Your task to perform on an android device: see creations saved in the google photos Image 0: 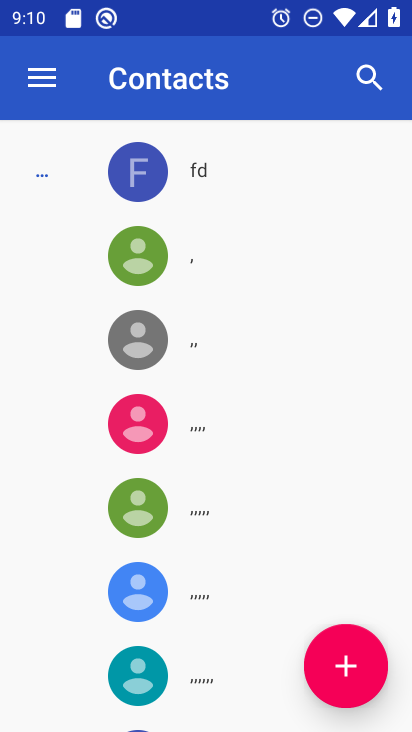
Step 0: drag from (317, 583) to (396, 221)
Your task to perform on an android device: see creations saved in the google photos Image 1: 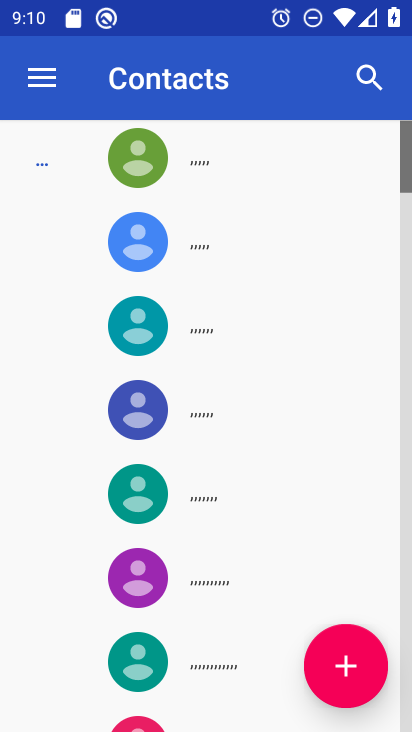
Step 1: press home button
Your task to perform on an android device: see creations saved in the google photos Image 2: 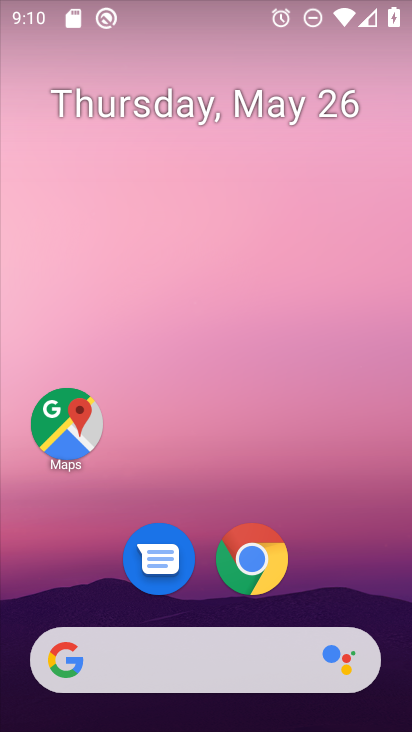
Step 2: drag from (319, 589) to (327, 165)
Your task to perform on an android device: see creations saved in the google photos Image 3: 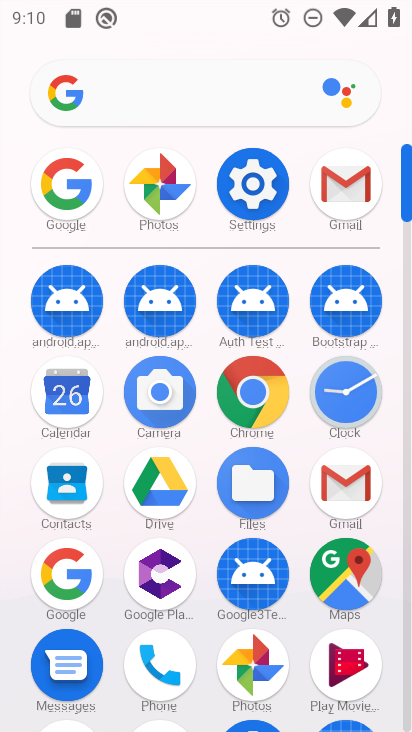
Step 3: click (161, 190)
Your task to perform on an android device: see creations saved in the google photos Image 4: 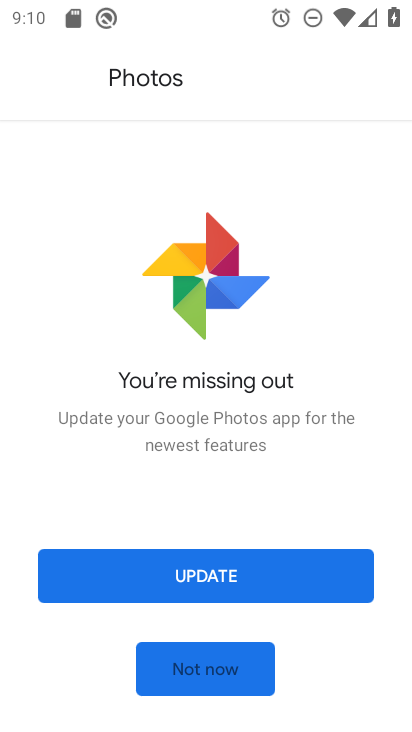
Step 4: click (242, 582)
Your task to perform on an android device: see creations saved in the google photos Image 5: 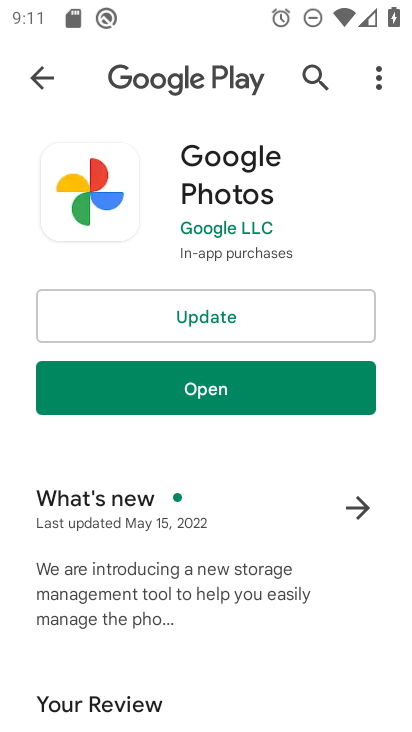
Step 5: click (198, 317)
Your task to perform on an android device: see creations saved in the google photos Image 6: 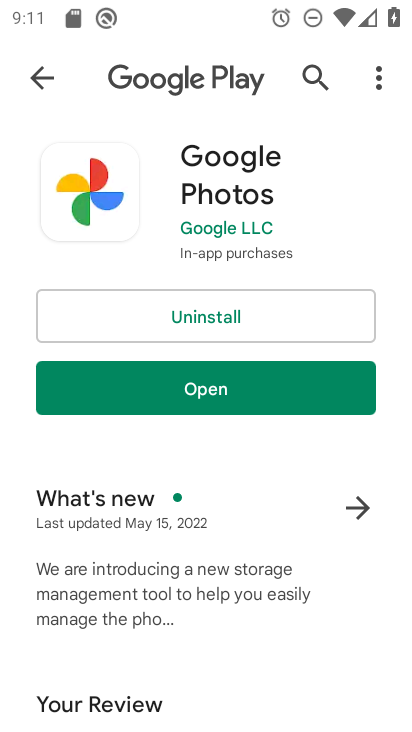
Step 6: click (201, 404)
Your task to perform on an android device: see creations saved in the google photos Image 7: 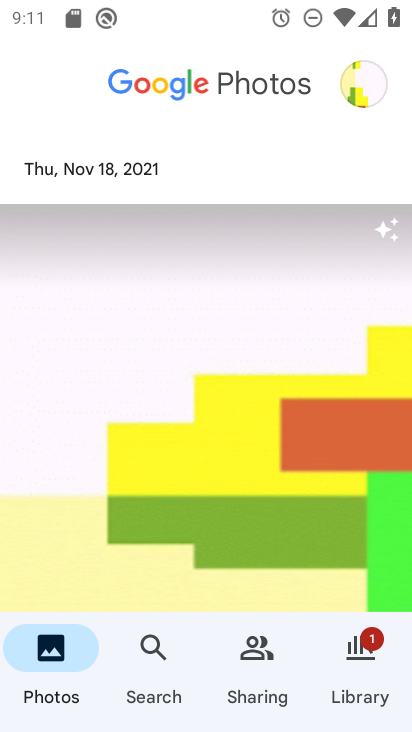
Step 7: click (150, 656)
Your task to perform on an android device: see creations saved in the google photos Image 8: 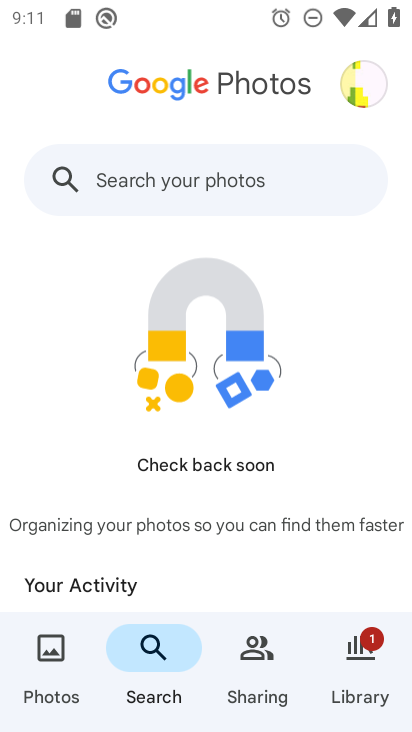
Step 8: drag from (181, 577) to (138, 152)
Your task to perform on an android device: see creations saved in the google photos Image 9: 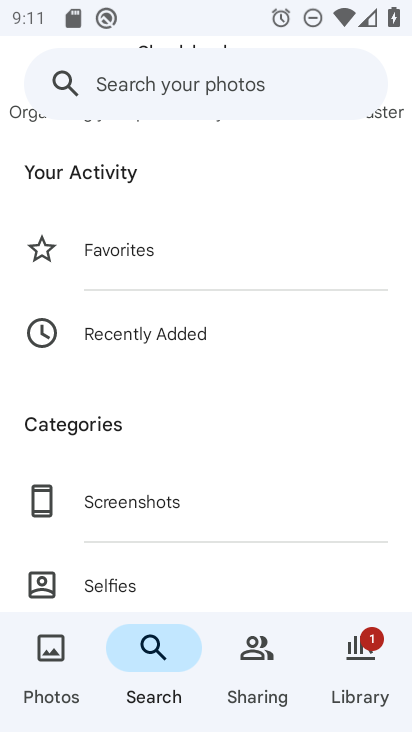
Step 9: drag from (138, 551) to (142, 202)
Your task to perform on an android device: see creations saved in the google photos Image 10: 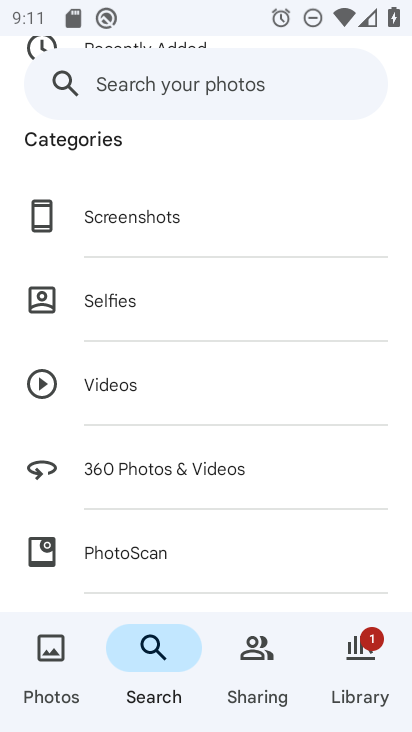
Step 10: drag from (181, 559) to (156, 490)
Your task to perform on an android device: see creations saved in the google photos Image 11: 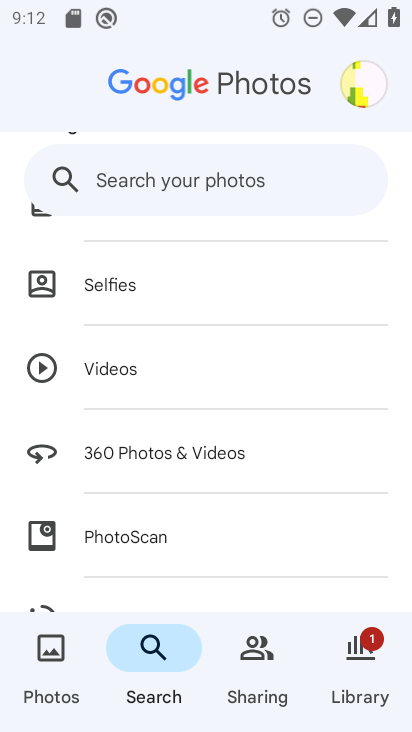
Step 11: drag from (166, 285) to (176, 127)
Your task to perform on an android device: see creations saved in the google photos Image 12: 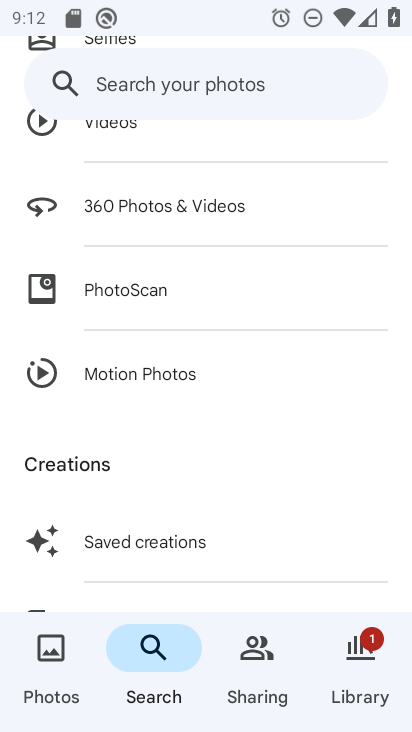
Step 12: click (140, 541)
Your task to perform on an android device: see creations saved in the google photos Image 13: 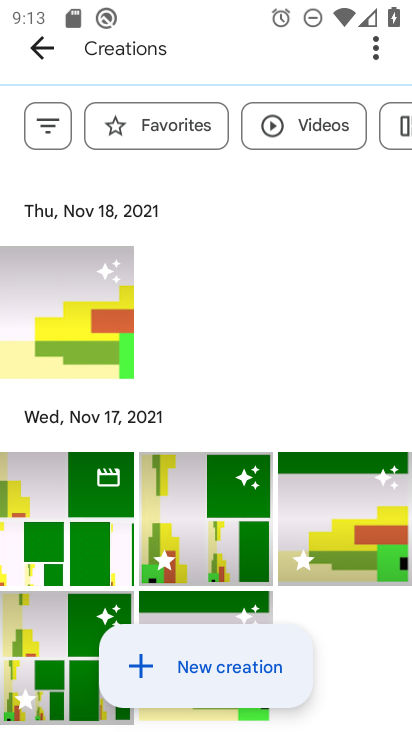
Step 13: task complete